Your task to perform on an android device: What is the recent news? Image 0: 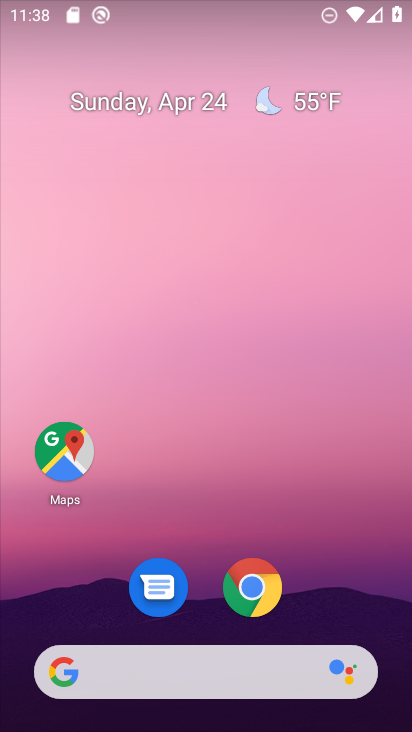
Step 0: press home button
Your task to perform on an android device: What is the recent news? Image 1: 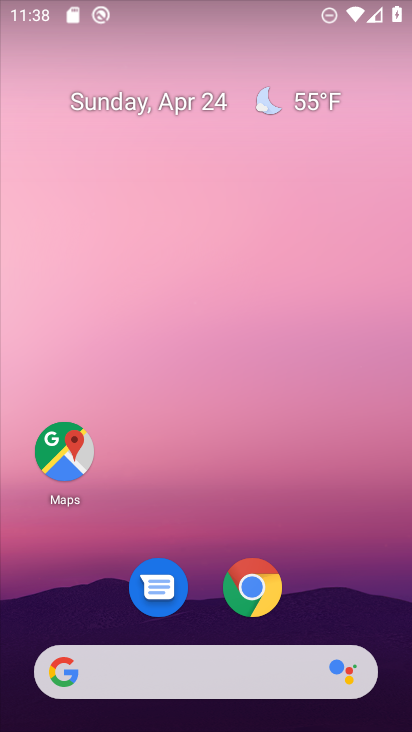
Step 1: drag from (321, 551) to (317, 287)
Your task to perform on an android device: What is the recent news? Image 2: 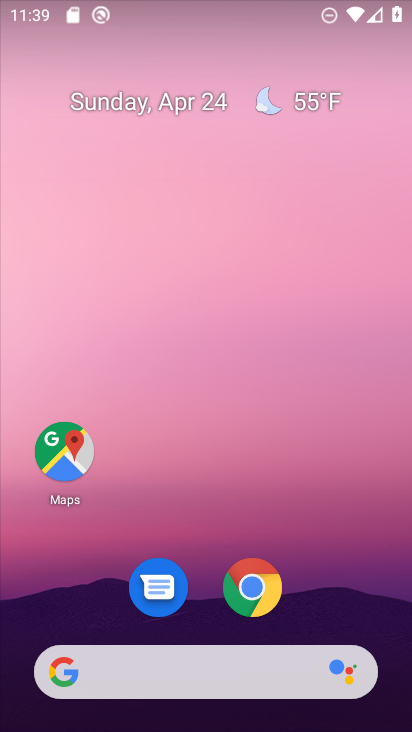
Step 2: drag from (352, 504) to (312, 238)
Your task to perform on an android device: What is the recent news? Image 3: 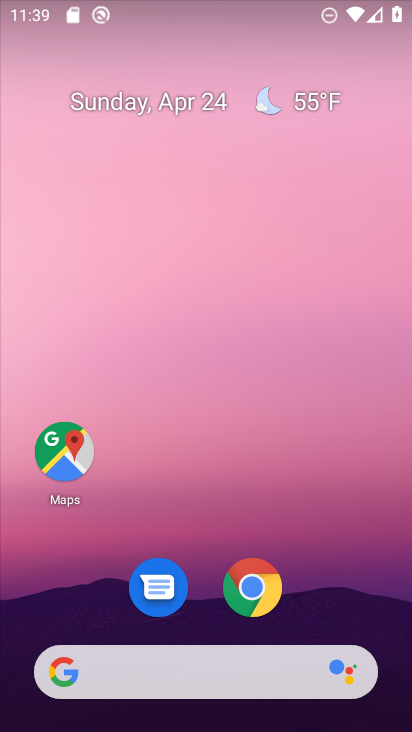
Step 3: drag from (316, 541) to (216, 264)
Your task to perform on an android device: What is the recent news? Image 4: 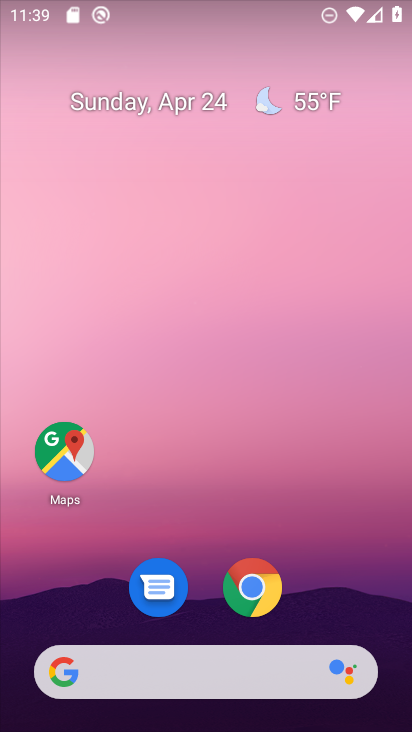
Step 4: drag from (338, 586) to (281, 177)
Your task to perform on an android device: What is the recent news? Image 5: 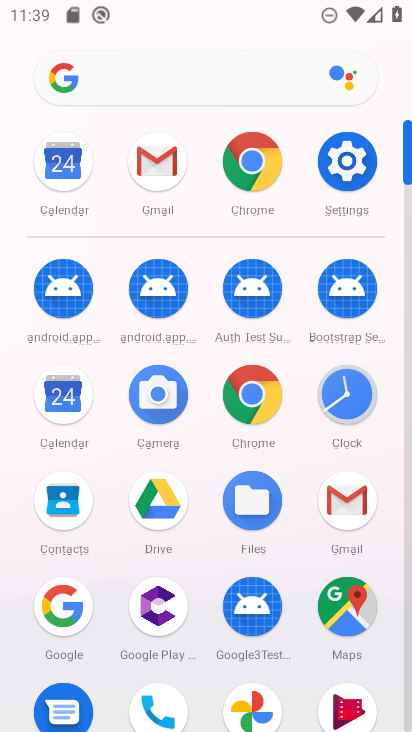
Step 5: click (240, 393)
Your task to perform on an android device: What is the recent news? Image 6: 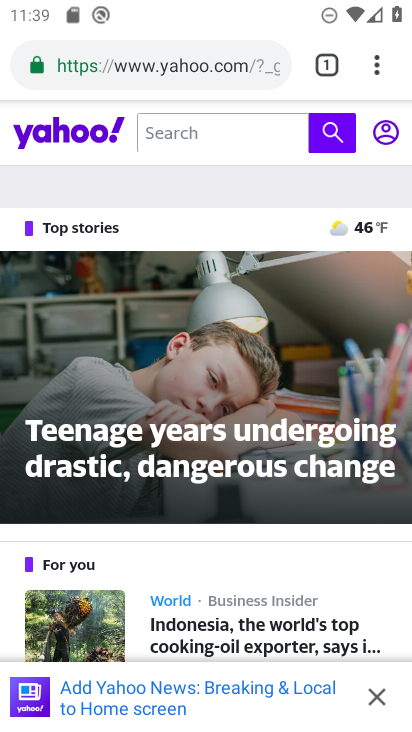
Step 6: click (201, 76)
Your task to perform on an android device: What is the recent news? Image 7: 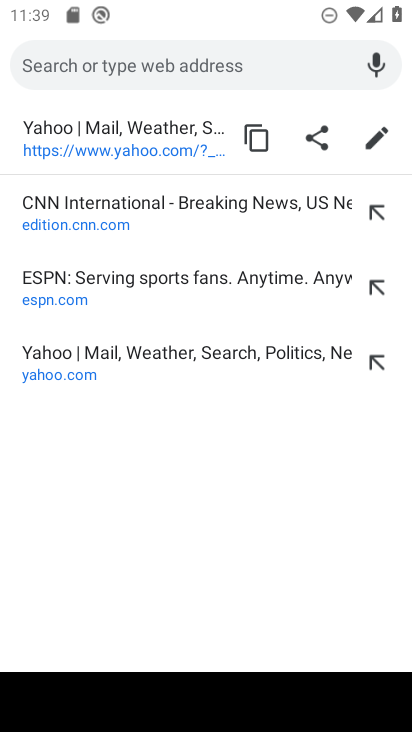
Step 7: type "news"
Your task to perform on an android device: What is the recent news? Image 8: 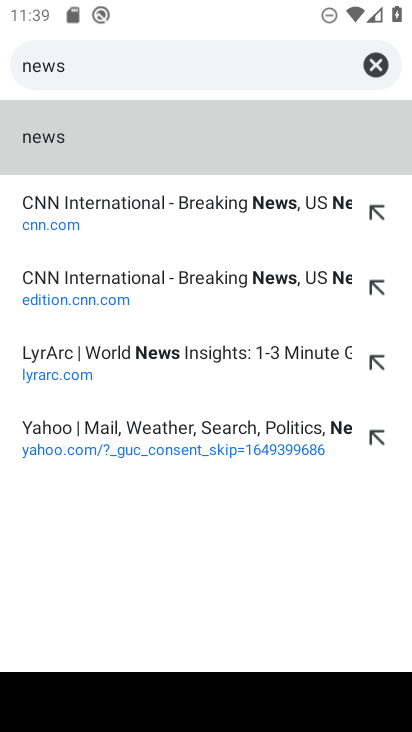
Step 8: click (24, 135)
Your task to perform on an android device: What is the recent news? Image 9: 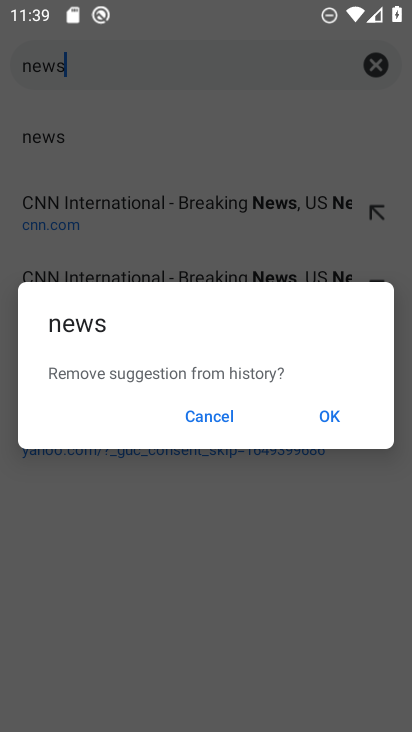
Step 9: click (216, 413)
Your task to perform on an android device: What is the recent news? Image 10: 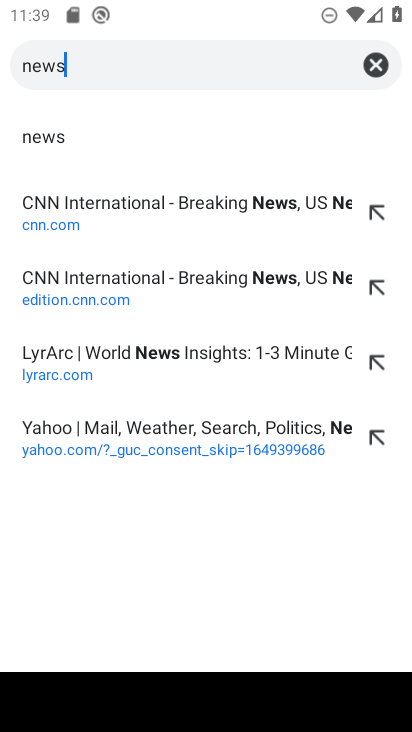
Step 10: press enter
Your task to perform on an android device: What is the recent news? Image 11: 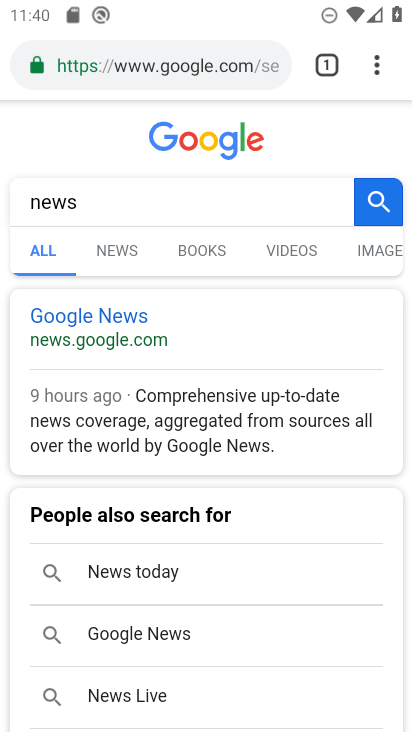
Step 11: click (116, 256)
Your task to perform on an android device: What is the recent news? Image 12: 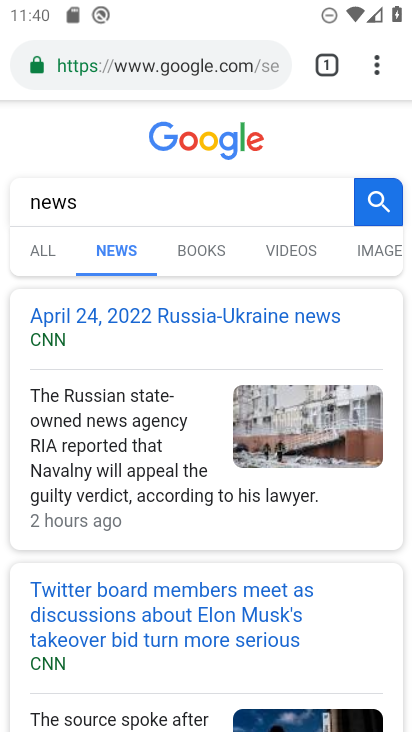
Step 12: task complete